Your task to perform on an android device: star an email in the gmail app Image 0: 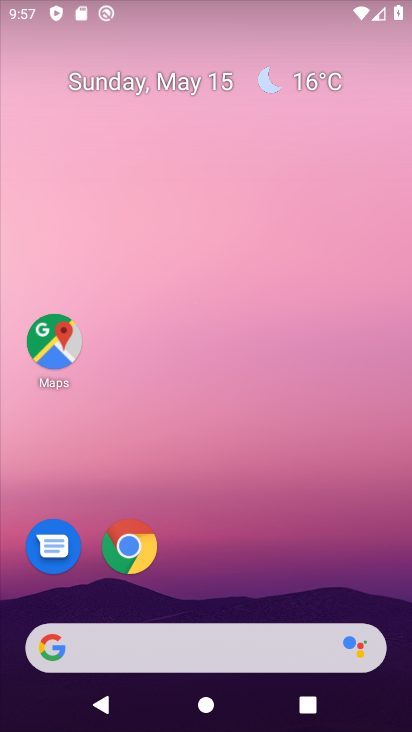
Step 0: click (219, 15)
Your task to perform on an android device: star an email in the gmail app Image 1: 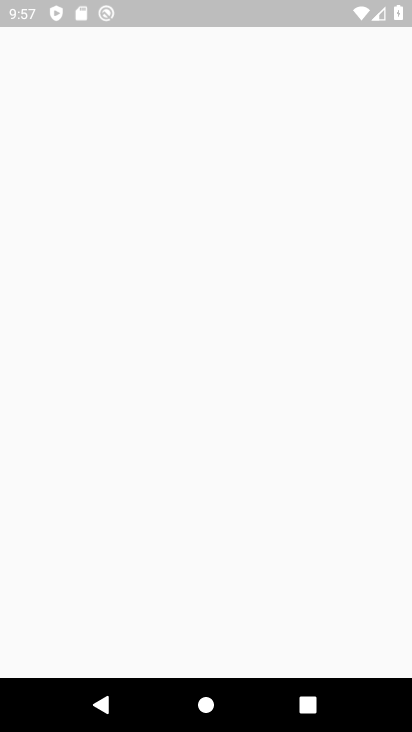
Step 1: task complete